Your task to perform on an android device: change your default location settings in chrome Image 0: 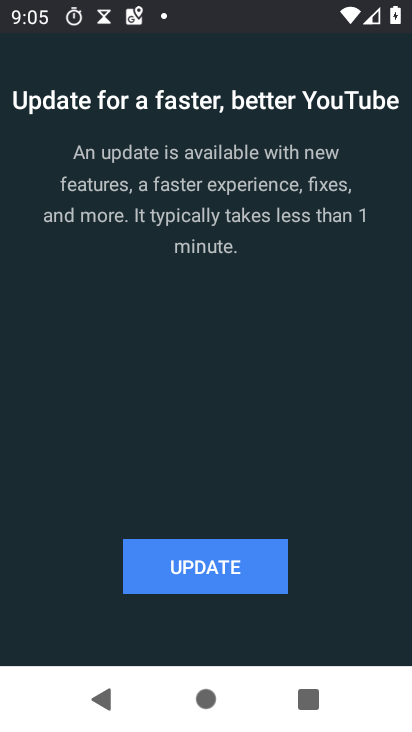
Step 0: press home button
Your task to perform on an android device: change your default location settings in chrome Image 1: 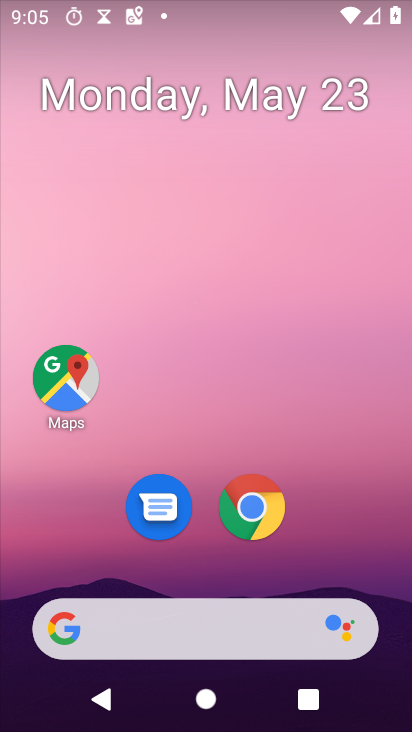
Step 1: drag from (358, 525) to (299, 2)
Your task to perform on an android device: change your default location settings in chrome Image 2: 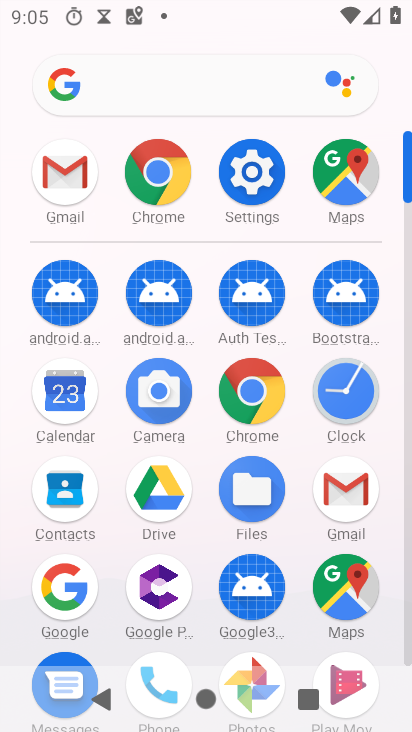
Step 2: click (124, 216)
Your task to perform on an android device: change your default location settings in chrome Image 3: 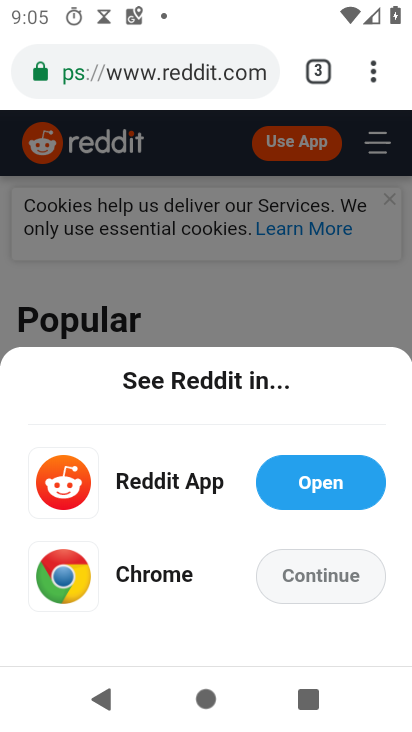
Step 3: drag from (379, 76) to (120, 487)
Your task to perform on an android device: change your default location settings in chrome Image 4: 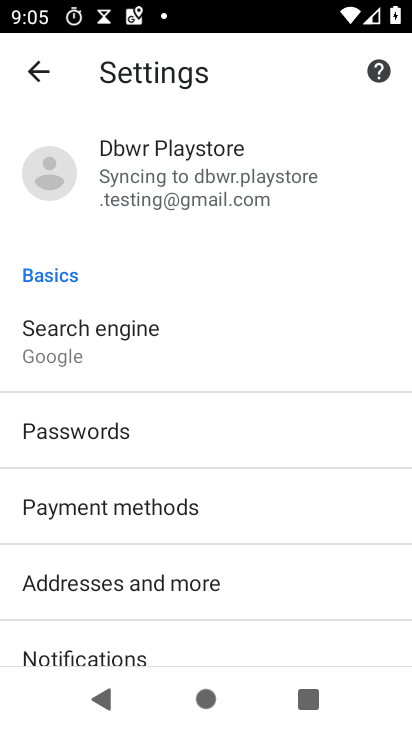
Step 4: drag from (229, 641) to (190, 297)
Your task to perform on an android device: change your default location settings in chrome Image 5: 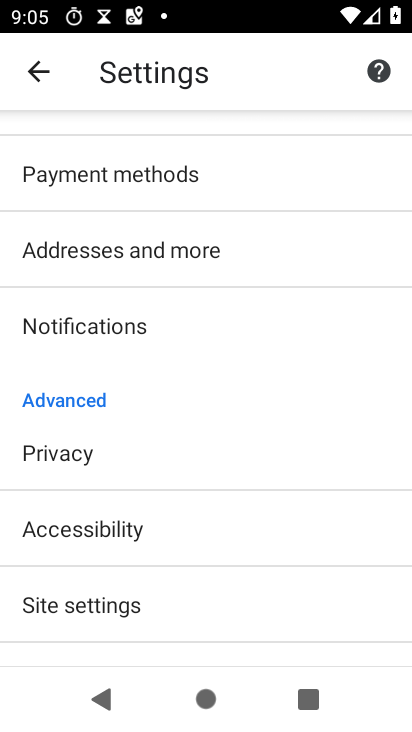
Step 5: drag from (130, 587) to (152, 194)
Your task to perform on an android device: change your default location settings in chrome Image 6: 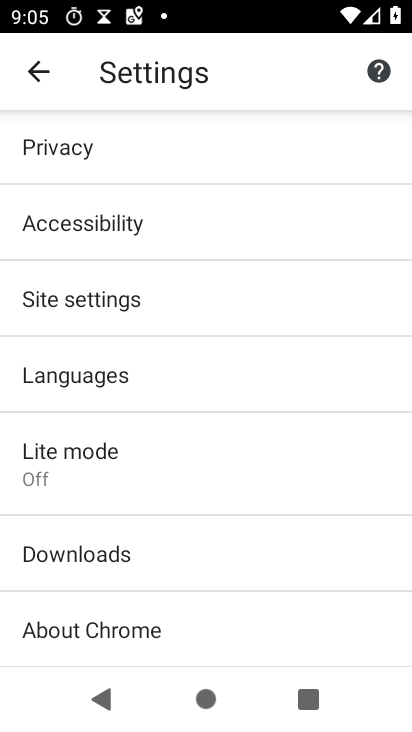
Step 6: drag from (203, 598) to (193, 463)
Your task to perform on an android device: change your default location settings in chrome Image 7: 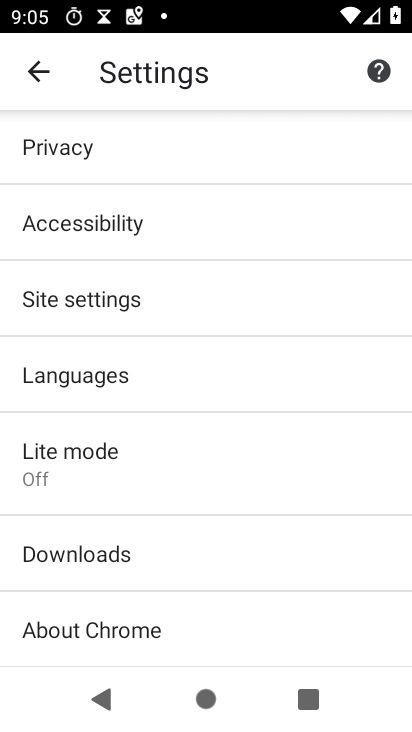
Step 7: drag from (159, 606) to (182, 173)
Your task to perform on an android device: change your default location settings in chrome Image 8: 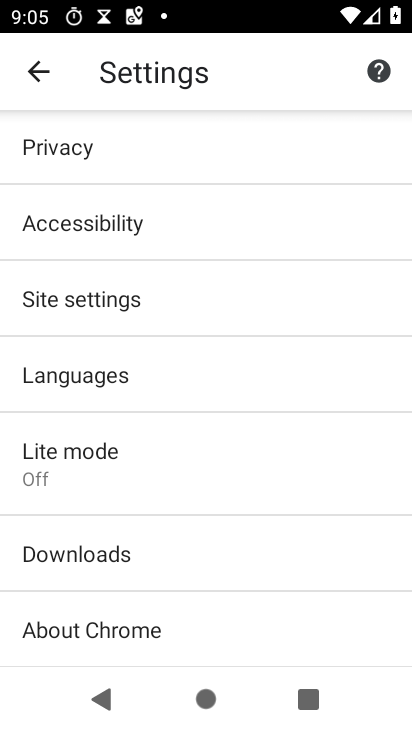
Step 8: drag from (168, 230) to (192, 603)
Your task to perform on an android device: change your default location settings in chrome Image 9: 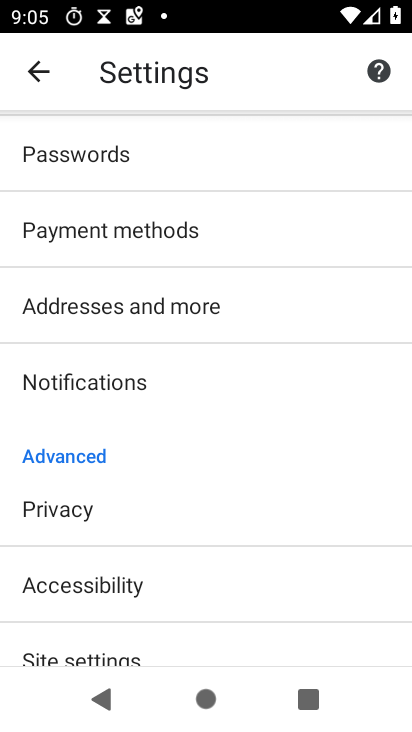
Step 9: drag from (173, 237) to (167, 589)
Your task to perform on an android device: change your default location settings in chrome Image 10: 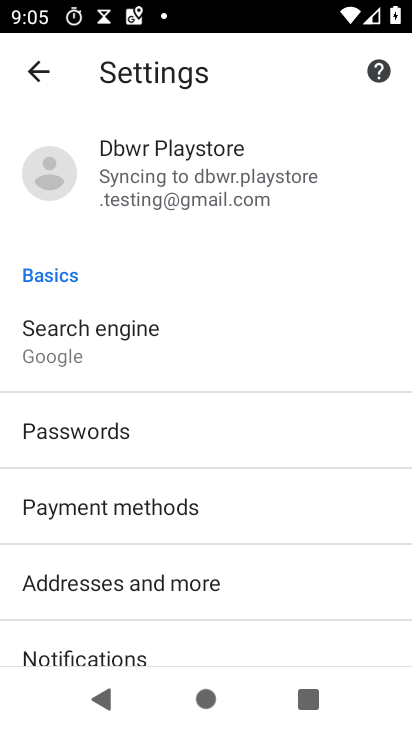
Step 10: drag from (170, 549) to (133, 153)
Your task to perform on an android device: change your default location settings in chrome Image 11: 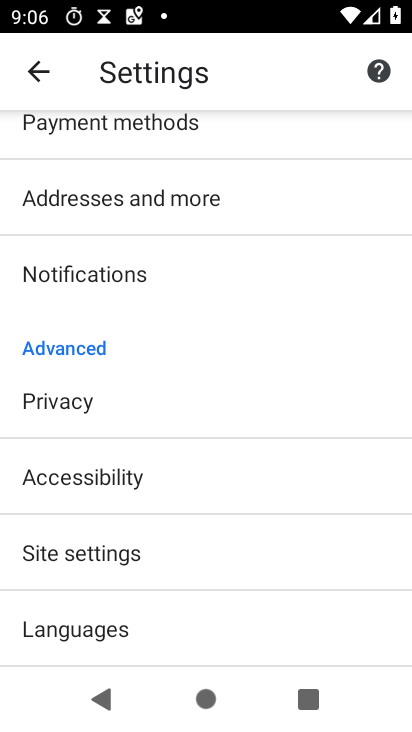
Step 11: drag from (111, 550) to (52, 294)
Your task to perform on an android device: change your default location settings in chrome Image 12: 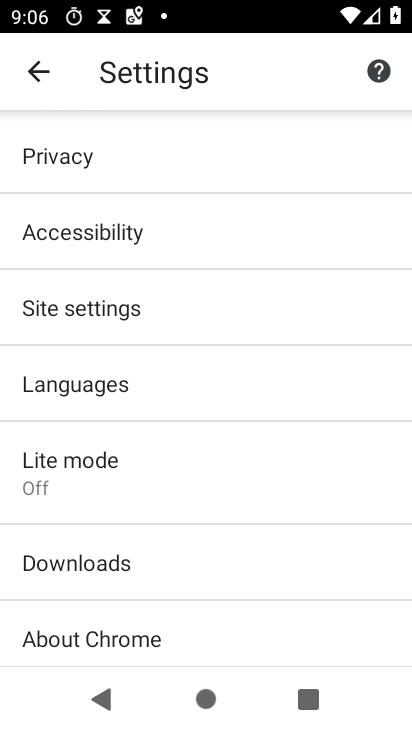
Step 12: click (54, 309)
Your task to perform on an android device: change your default location settings in chrome Image 13: 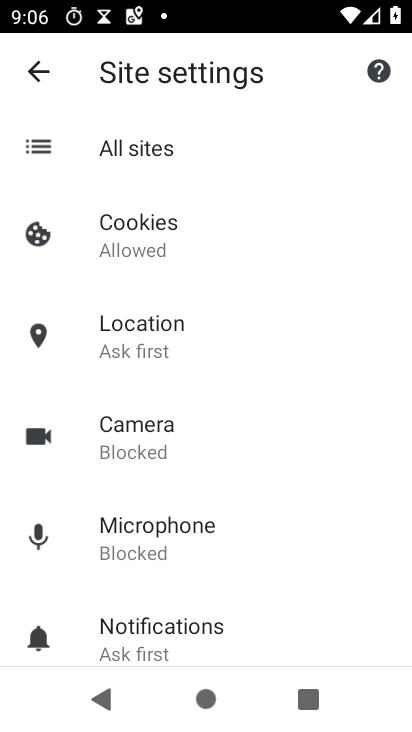
Step 13: click (138, 330)
Your task to perform on an android device: change your default location settings in chrome Image 14: 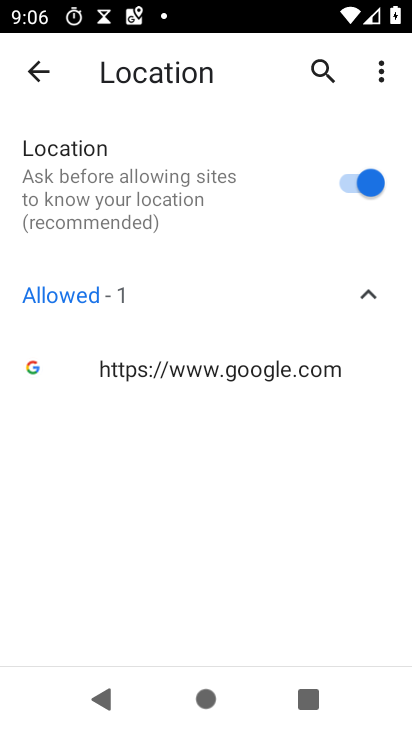
Step 14: click (342, 203)
Your task to perform on an android device: change your default location settings in chrome Image 15: 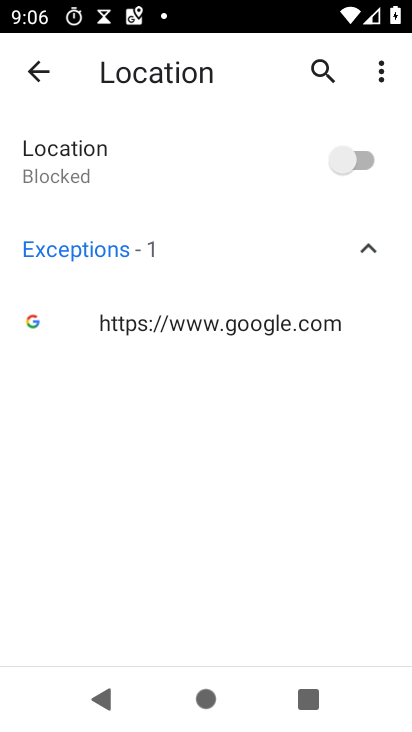
Step 15: task complete